Your task to perform on an android device: turn on wifi Image 0: 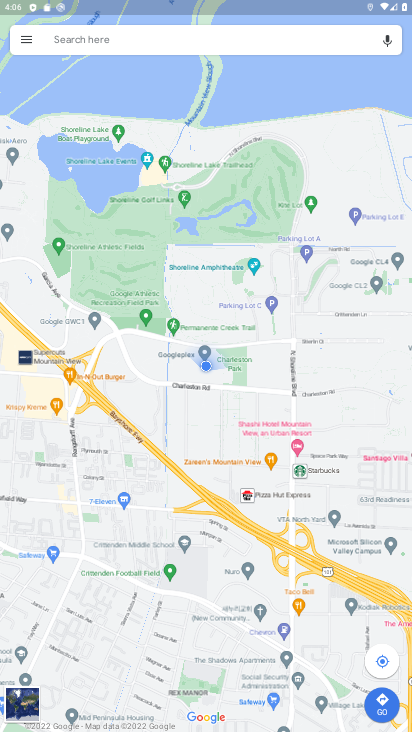
Step 0: press home button
Your task to perform on an android device: turn on wifi Image 1: 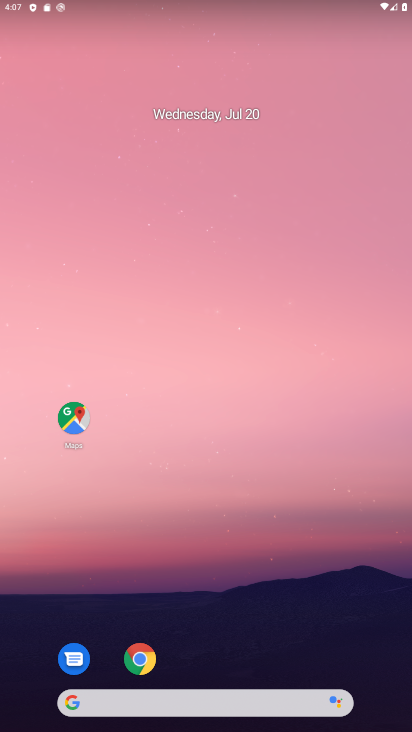
Step 1: drag from (257, 655) to (363, 30)
Your task to perform on an android device: turn on wifi Image 2: 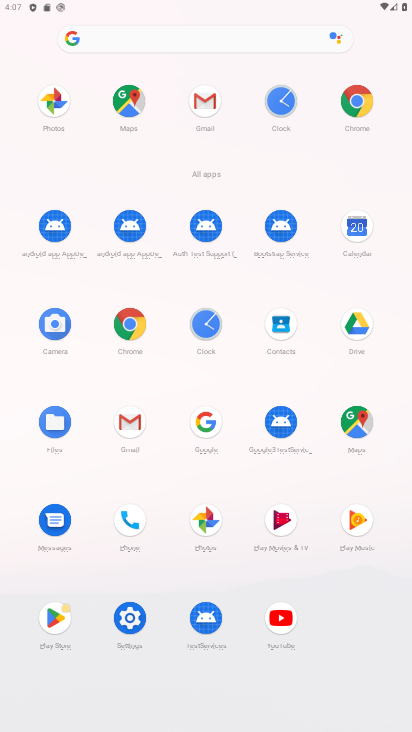
Step 2: click (130, 623)
Your task to perform on an android device: turn on wifi Image 3: 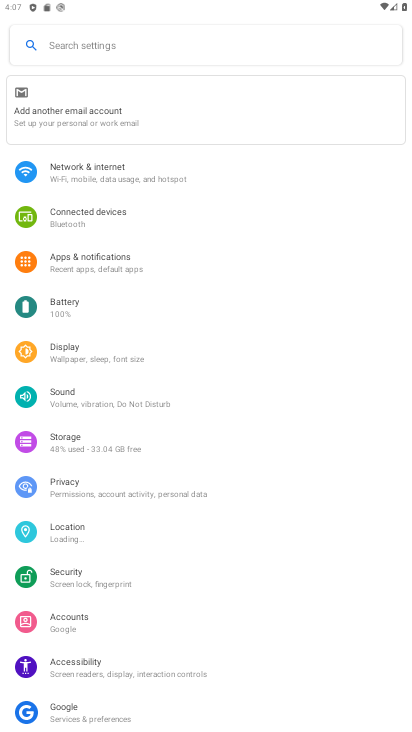
Step 3: click (125, 170)
Your task to perform on an android device: turn on wifi Image 4: 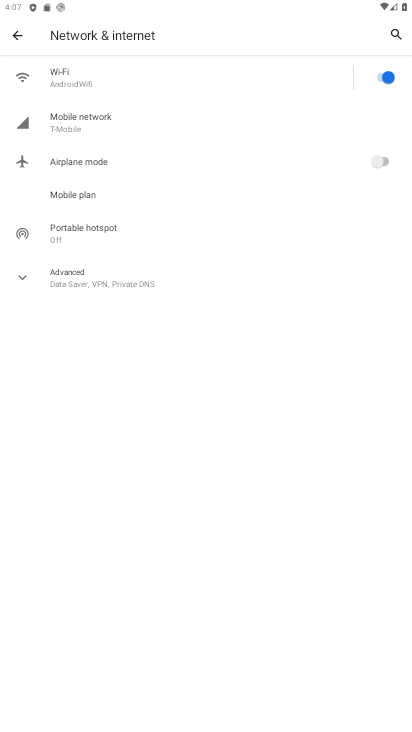
Step 4: click (109, 85)
Your task to perform on an android device: turn on wifi Image 5: 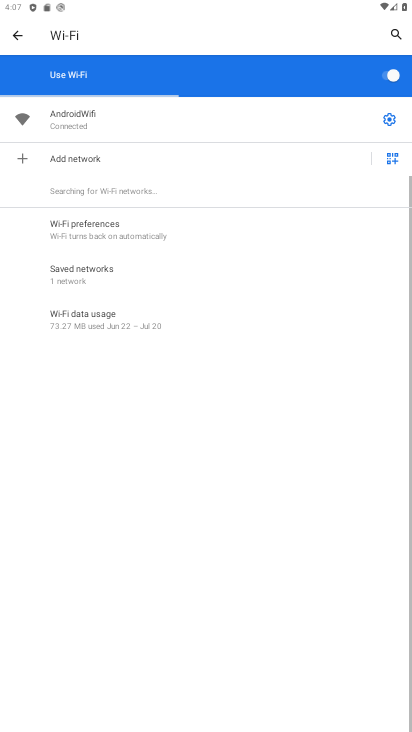
Step 5: task complete